Your task to perform on an android device: turn off improve location accuracy Image 0: 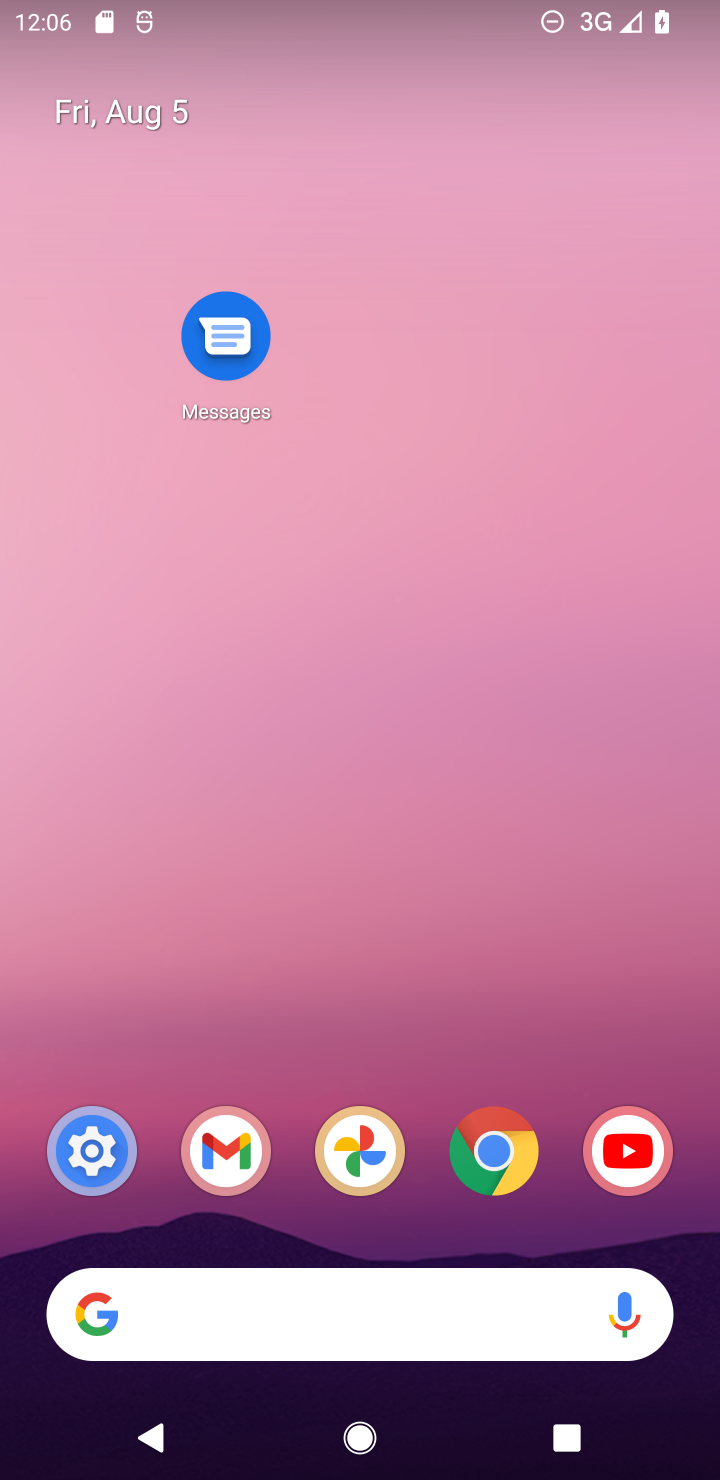
Step 0: click (86, 1154)
Your task to perform on an android device: turn off improve location accuracy Image 1: 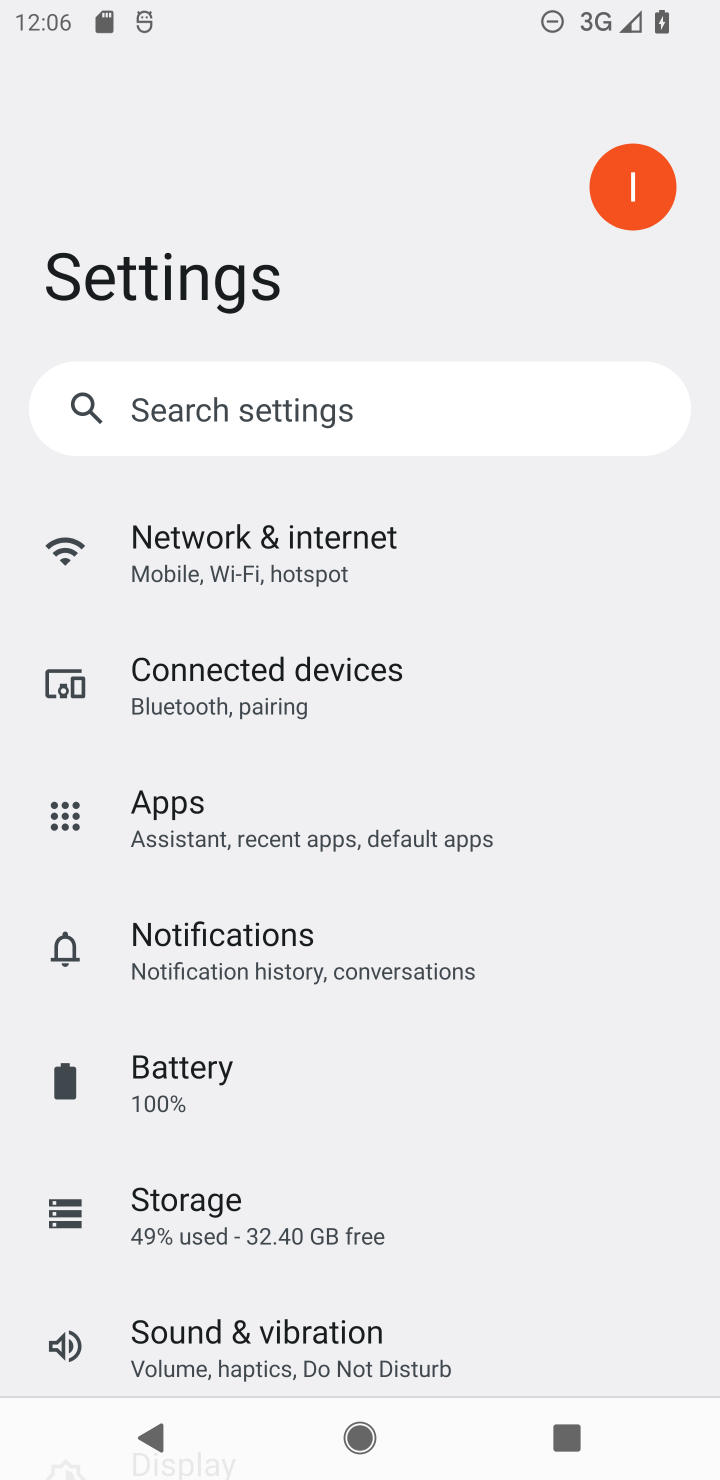
Step 1: drag from (359, 1212) to (382, 498)
Your task to perform on an android device: turn off improve location accuracy Image 2: 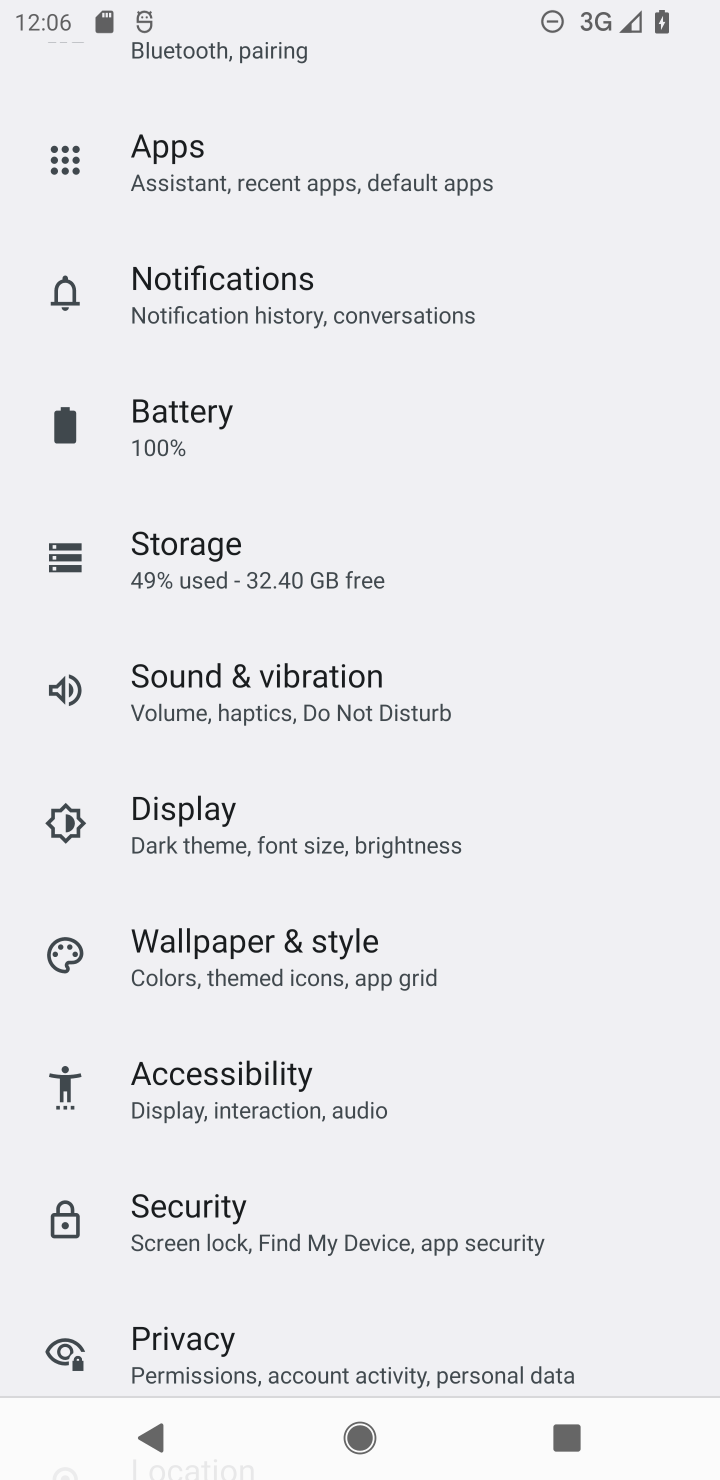
Step 2: drag from (367, 1106) to (432, 351)
Your task to perform on an android device: turn off improve location accuracy Image 3: 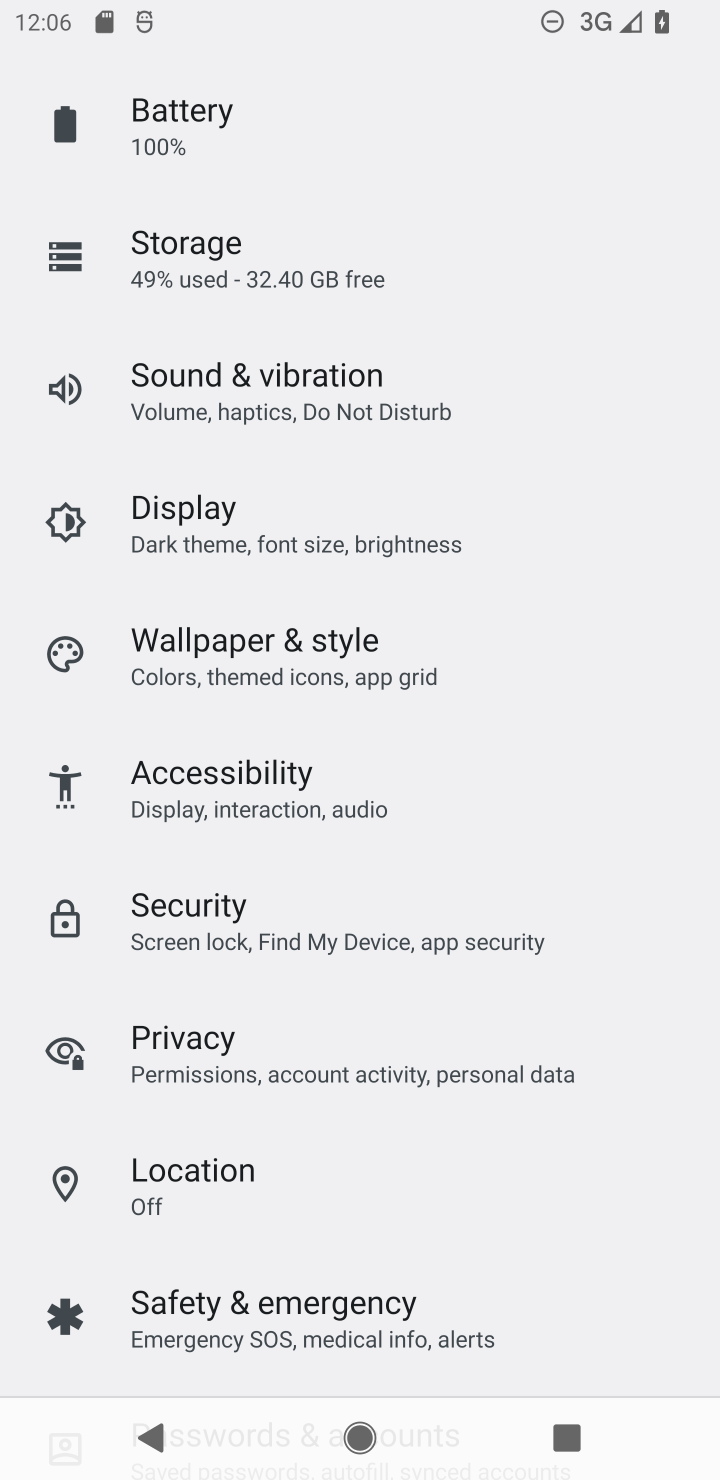
Step 3: click (184, 1172)
Your task to perform on an android device: turn off improve location accuracy Image 4: 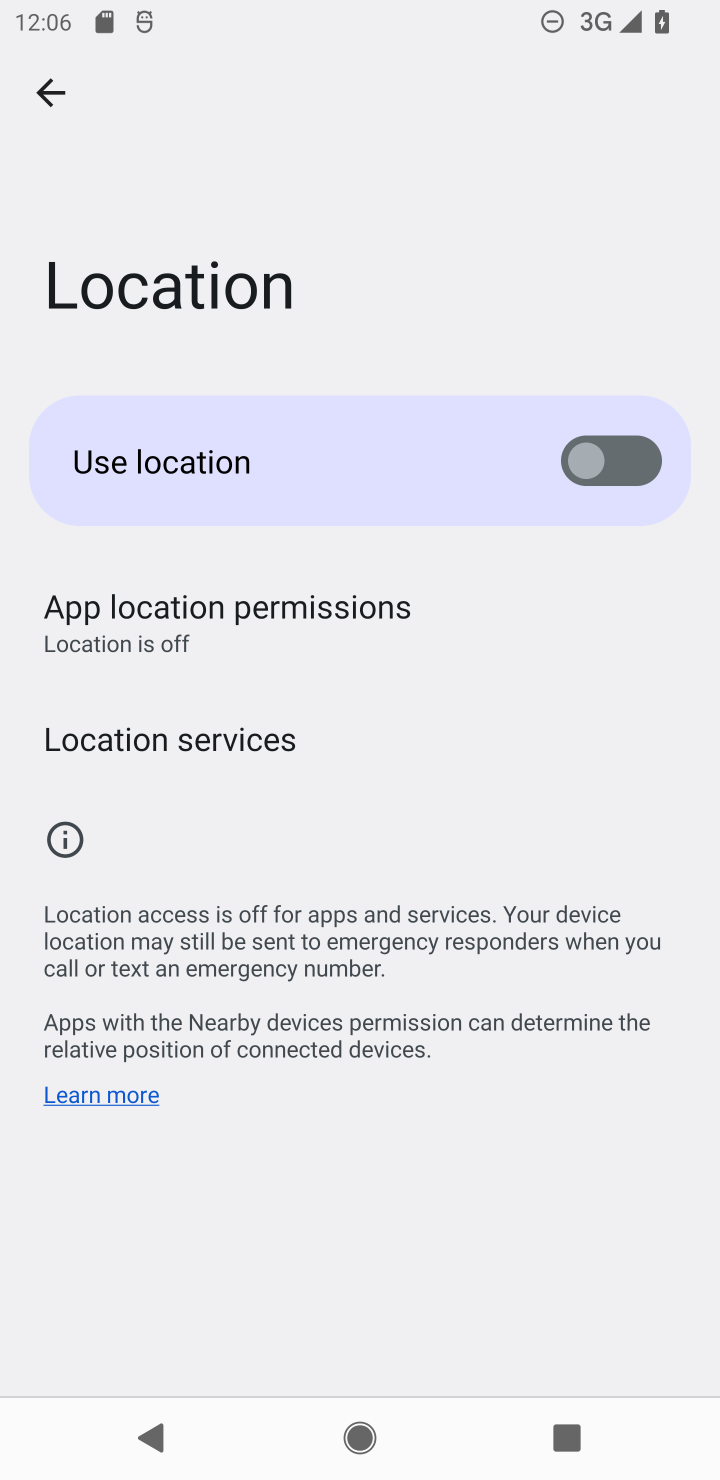
Step 4: click (223, 1040)
Your task to perform on an android device: turn off improve location accuracy Image 5: 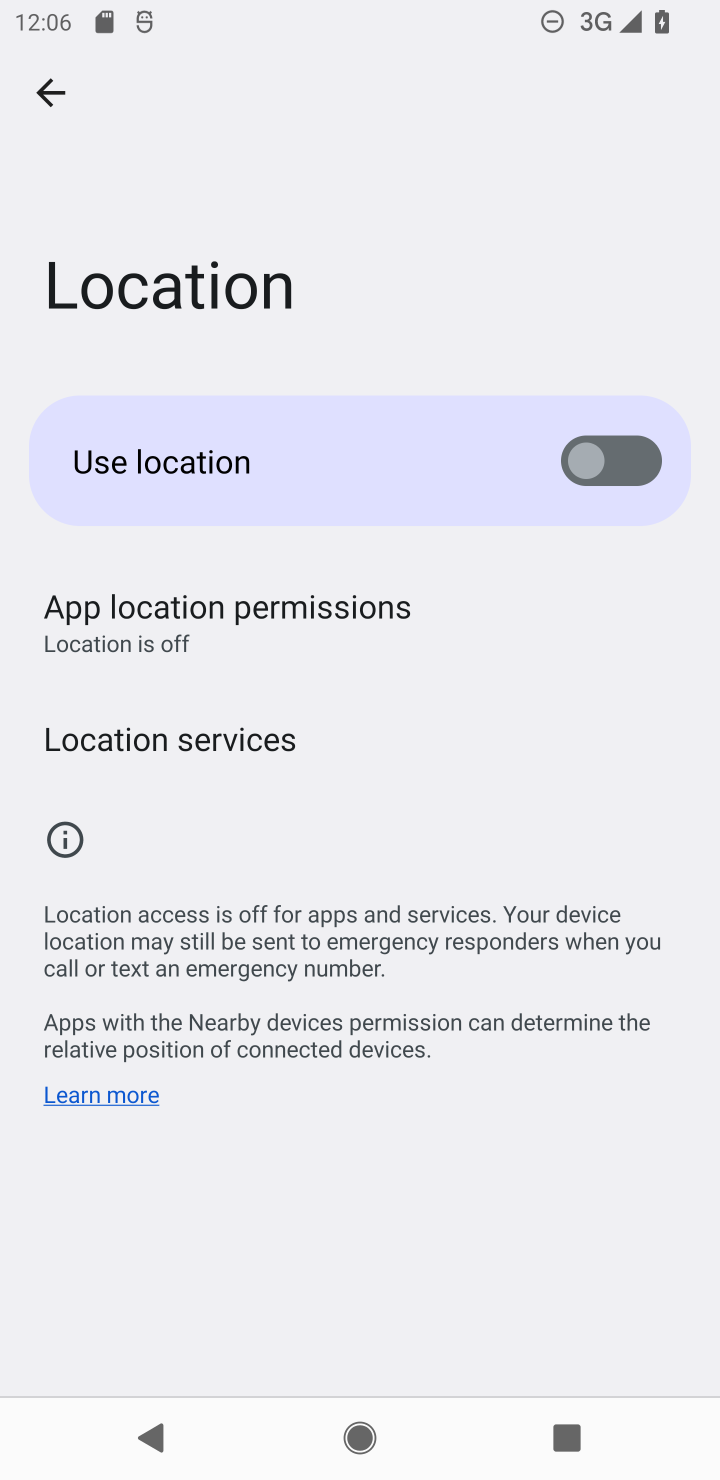
Step 5: click (299, 741)
Your task to perform on an android device: turn off improve location accuracy Image 6: 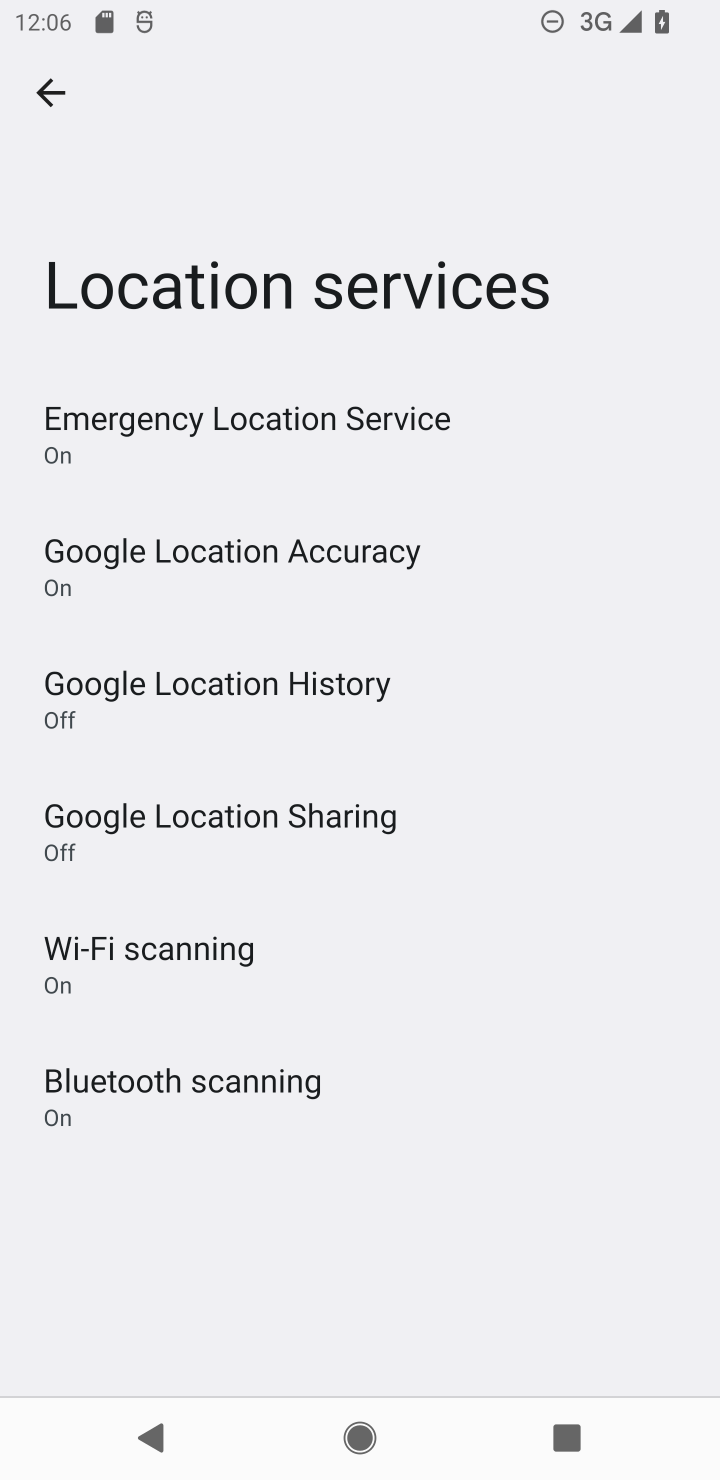
Step 6: click (370, 548)
Your task to perform on an android device: turn off improve location accuracy Image 7: 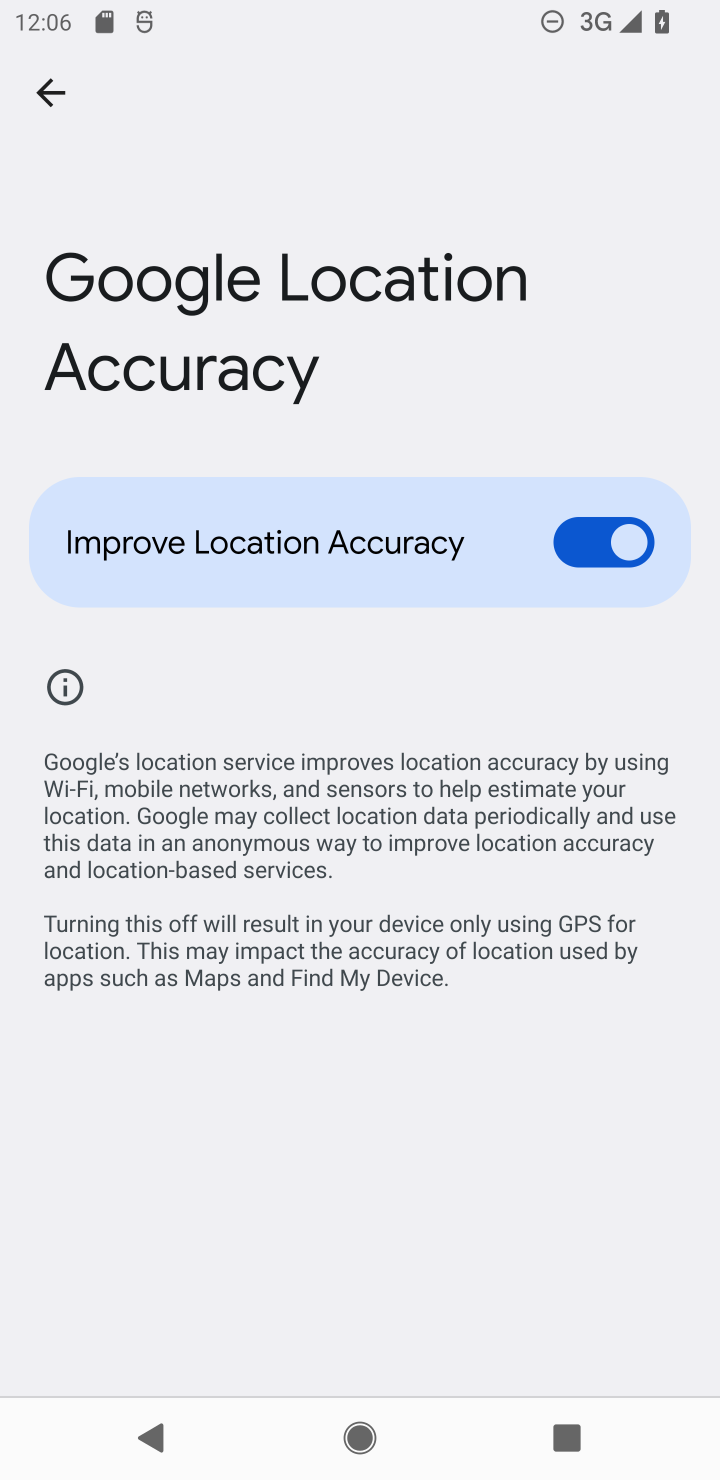
Step 7: task complete